Your task to perform on an android device: When is my next meeting? Image 0: 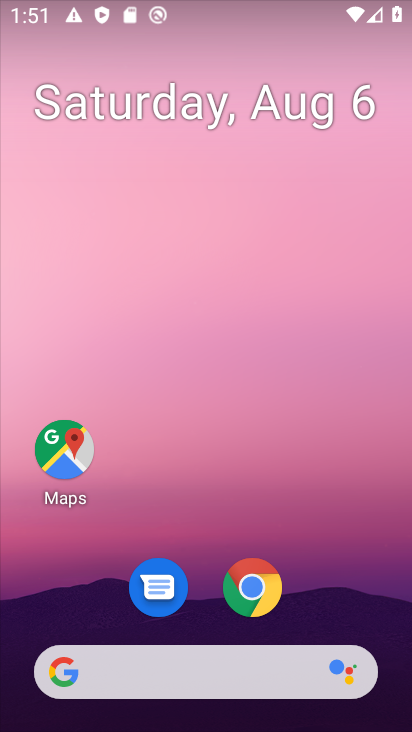
Step 0: drag from (195, 549) to (200, 138)
Your task to perform on an android device: When is my next meeting? Image 1: 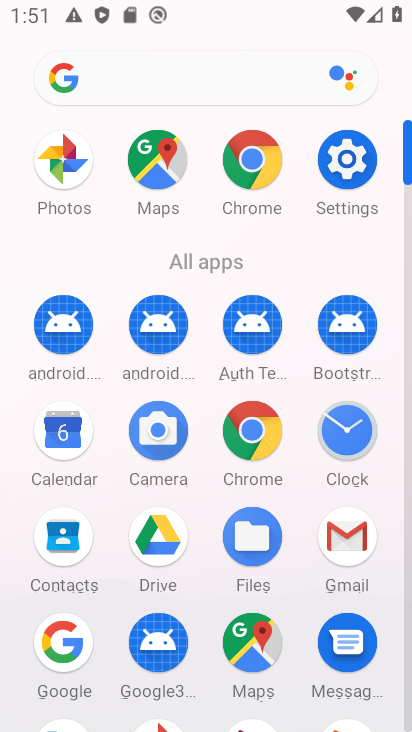
Step 1: click (66, 420)
Your task to perform on an android device: When is my next meeting? Image 2: 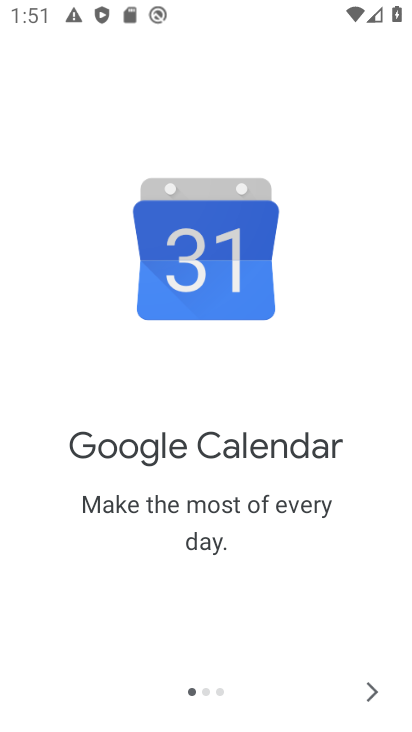
Step 2: click (359, 699)
Your task to perform on an android device: When is my next meeting? Image 3: 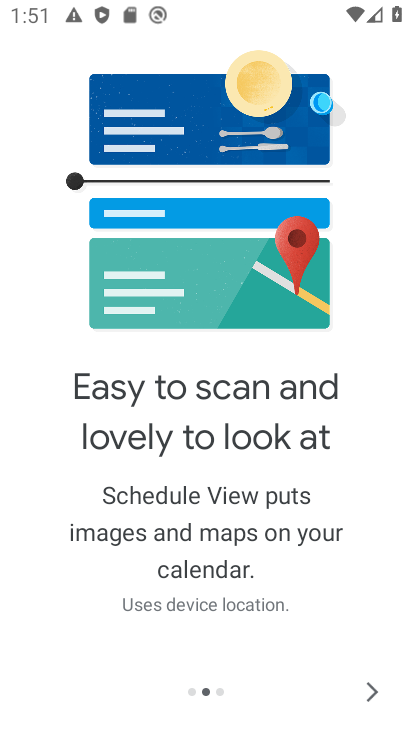
Step 3: click (359, 699)
Your task to perform on an android device: When is my next meeting? Image 4: 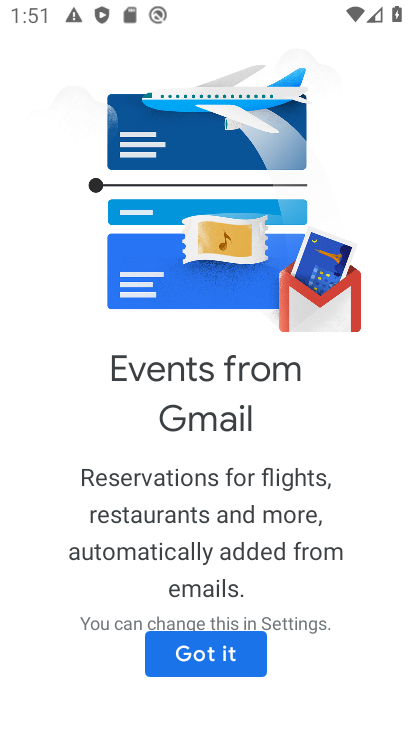
Step 4: click (359, 699)
Your task to perform on an android device: When is my next meeting? Image 5: 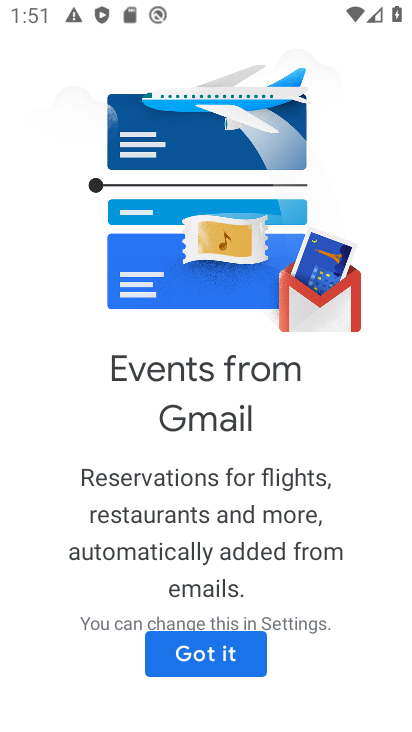
Step 5: click (156, 635)
Your task to perform on an android device: When is my next meeting? Image 6: 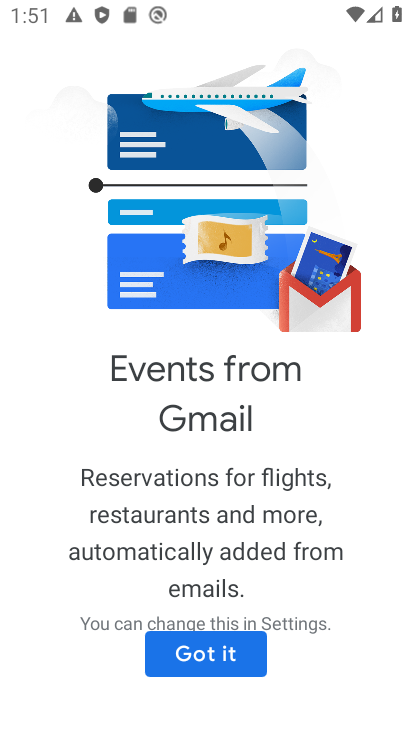
Step 6: click (168, 638)
Your task to perform on an android device: When is my next meeting? Image 7: 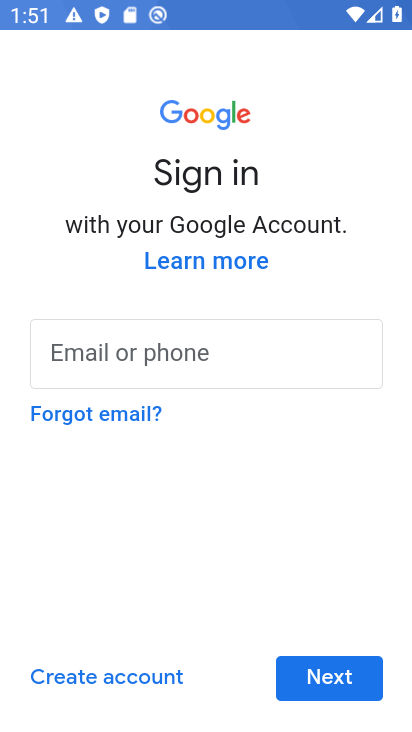
Step 7: task complete